Your task to perform on an android device: Open Chrome and go to settings Image 0: 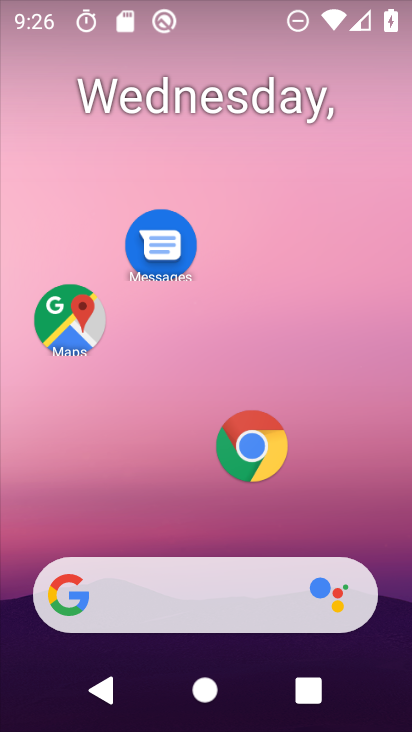
Step 0: press home button
Your task to perform on an android device: Open Chrome and go to settings Image 1: 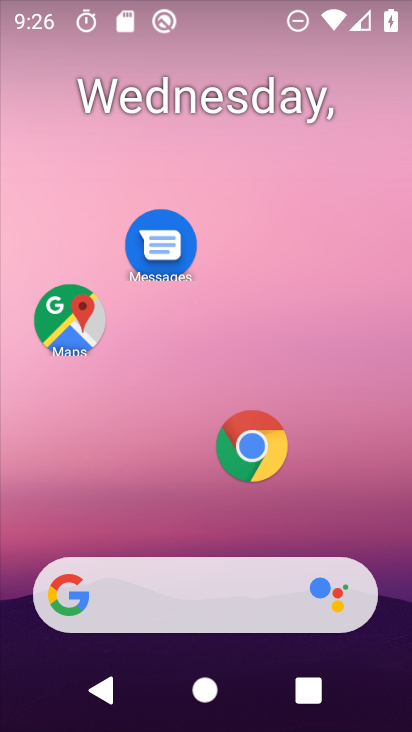
Step 1: click (254, 446)
Your task to perform on an android device: Open Chrome and go to settings Image 2: 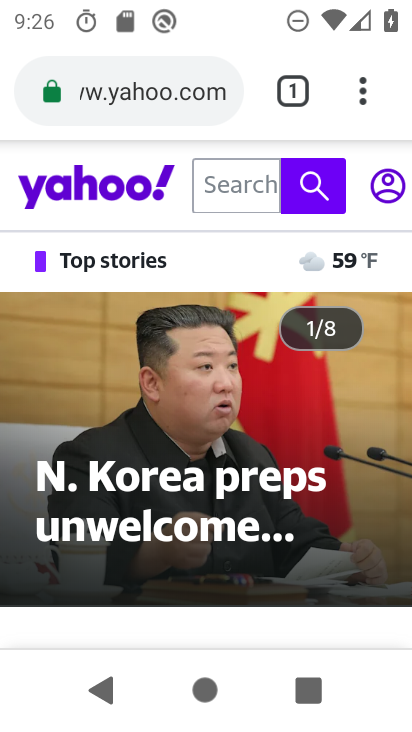
Step 2: click (362, 86)
Your task to perform on an android device: Open Chrome and go to settings Image 3: 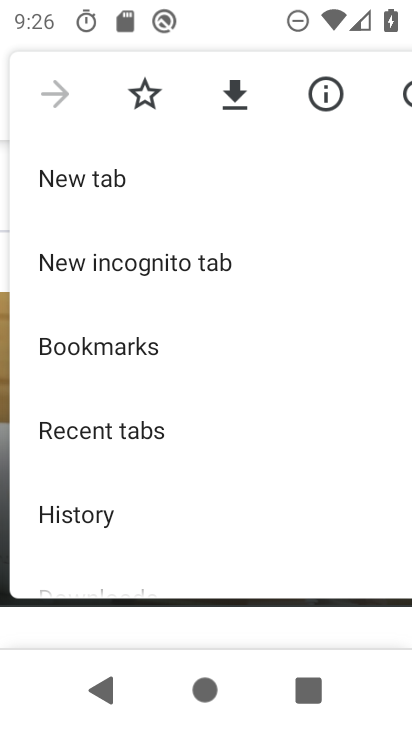
Step 3: drag from (179, 508) to (238, 2)
Your task to perform on an android device: Open Chrome and go to settings Image 4: 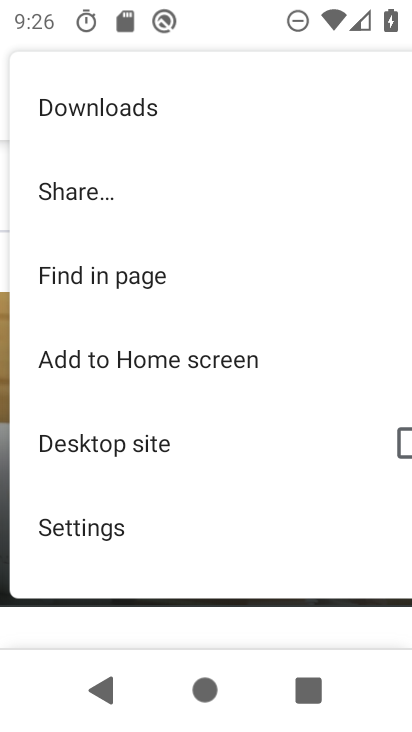
Step 4: click (139, 537)
Your task to perform on an android device: Open Chrome and go to settings Image 5: 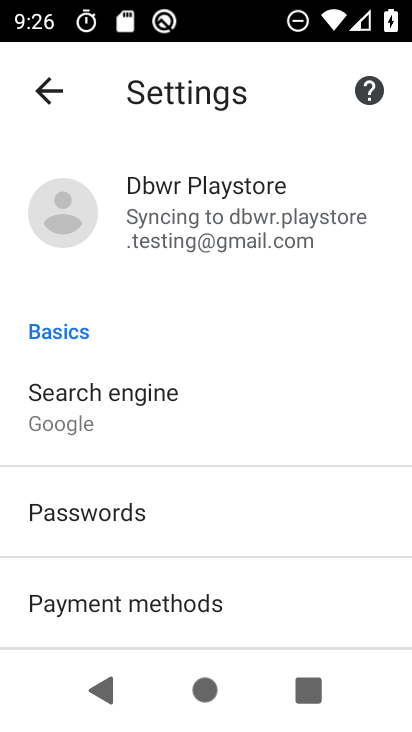
Step 5: task complete